Your task to perform on an android device: Check the news Image 0: 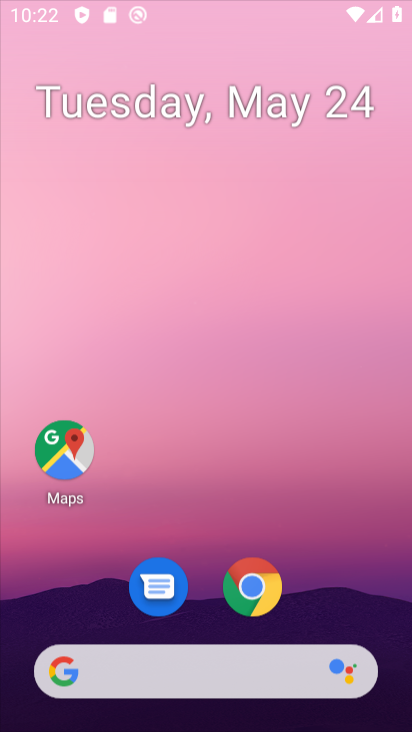
Step 0: press home button
Your task to perform on an android device: Check the news Image 1: 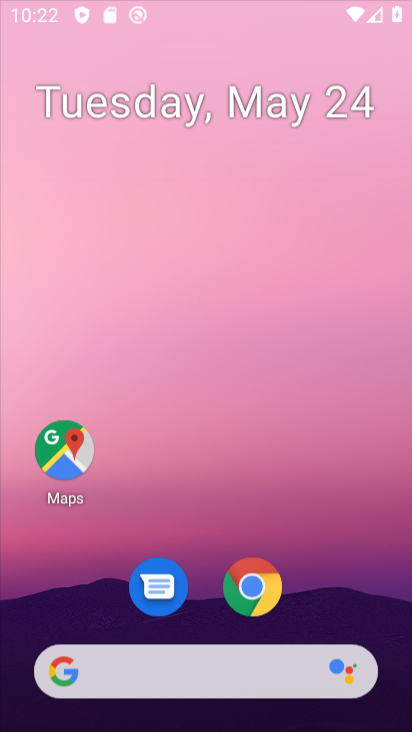
Step 1: click (252, 590)
Your task to perform on an android device: Check the news Image 2: 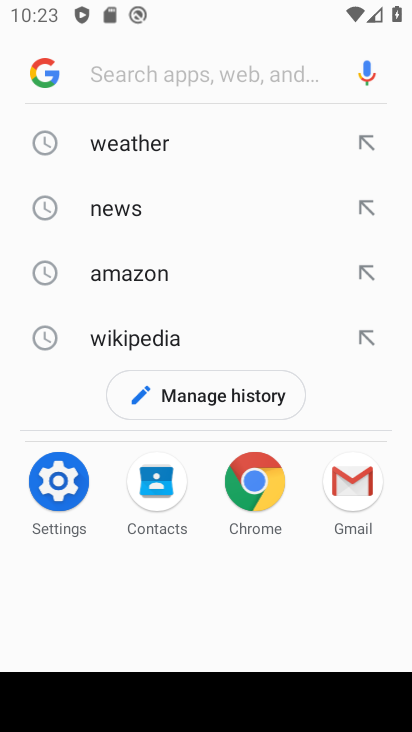
Step 2: click (245, 576)
Your task to perform on an android device: Check the news Image 3: 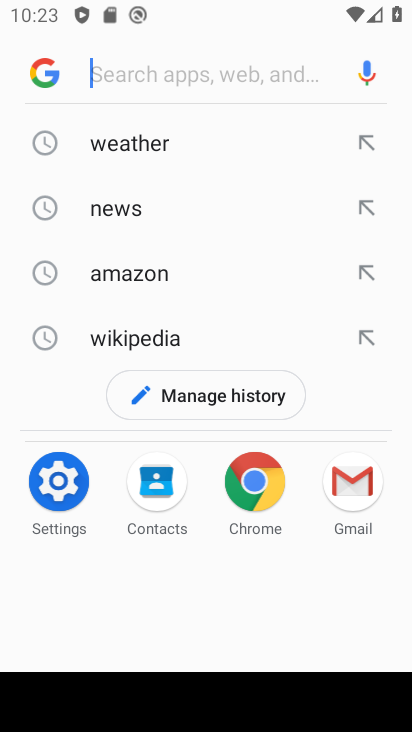
Step 3: press back button
Your task to perform on an android device: Check the news Image 4: 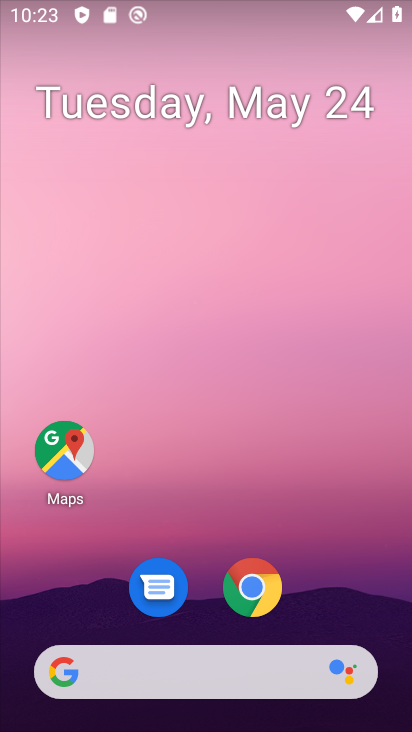
Step 4: click (253, 603)
Your task to perform on an android device: Check the news Image 5: 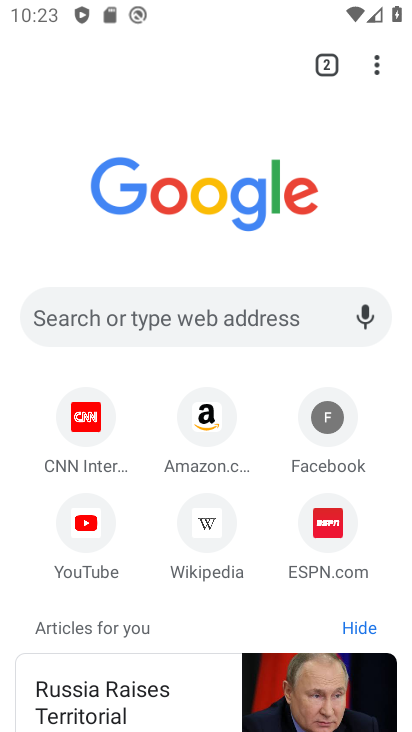
Step 5: click (375, 70)
Your task to perform on an android device: Check the news Image 6: 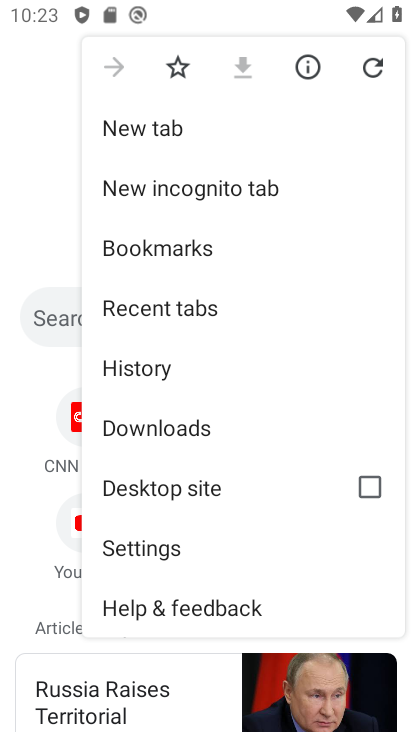
Step 6: click (42, 147)
Your task to perform on an android device: Check the news Image 7: 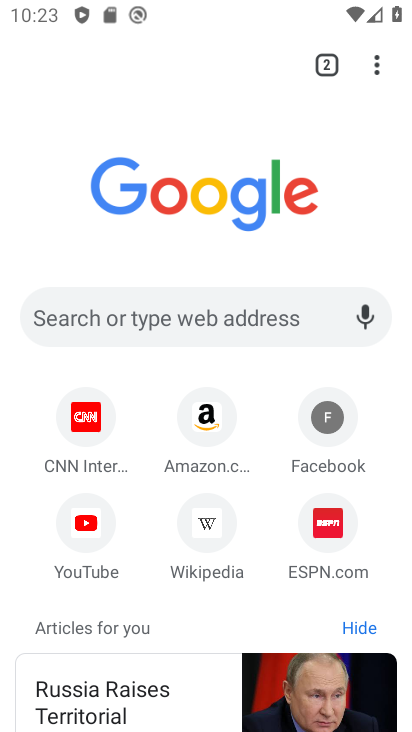
Step 7: click (150, 316)
Your task to perform on an android device: Check the news Image 8: 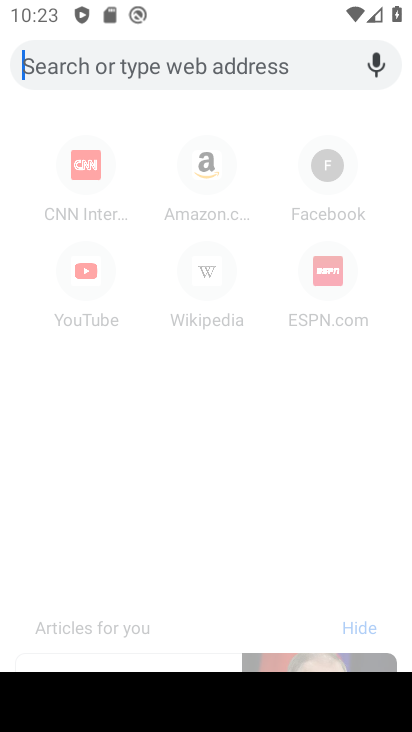
Step 8: type " news"
Your task to perform on an android device: Check the news Image 9: 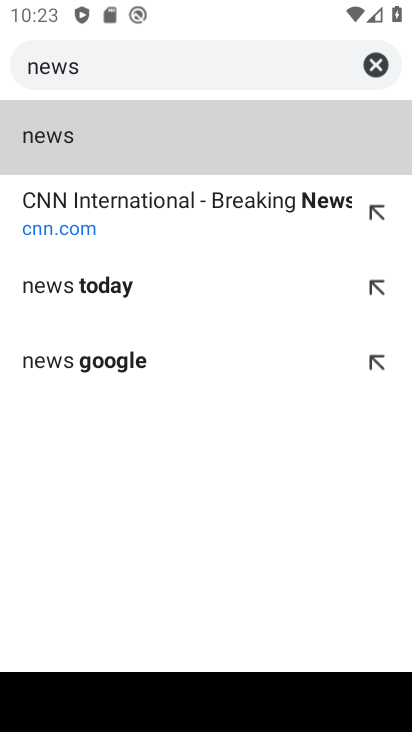
Step 9: click (210, 132)
Your task to perform on an android device: Check the news Image 10: 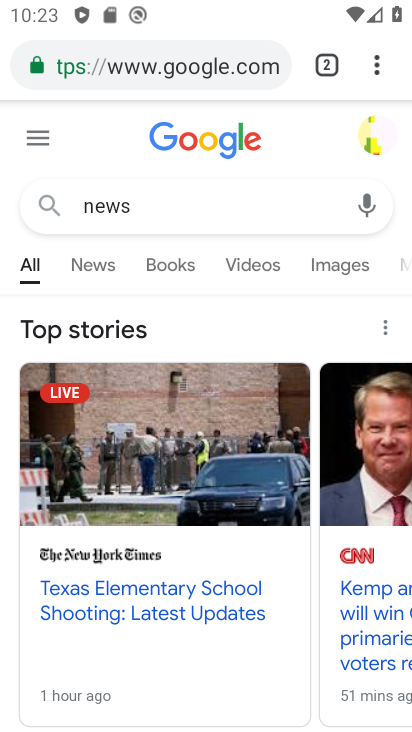
Step 10: task complete